Your task to perform on an android device: Search for the Nintendo Switch. Image 0: 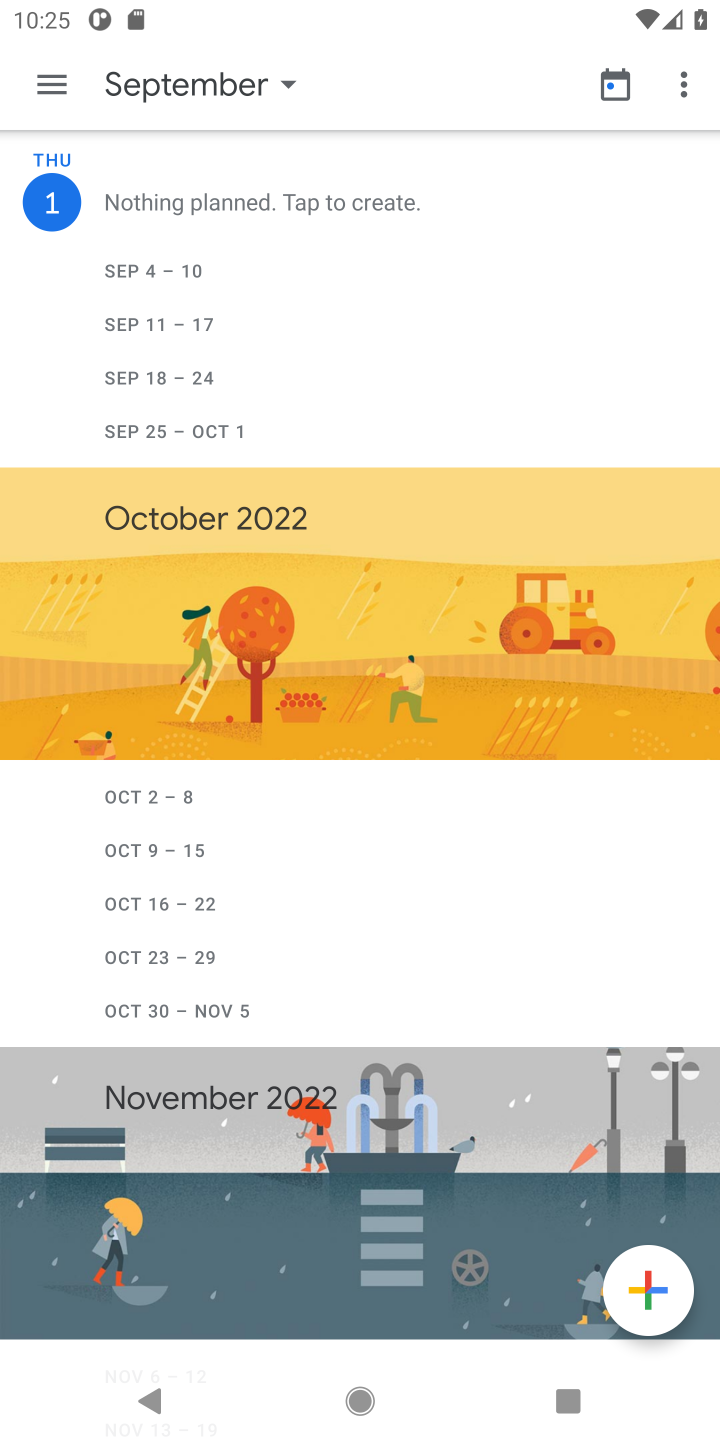
Step 0: press home button
Your task to perform on an android device: Search for the Nintendo Switch. Image 1: 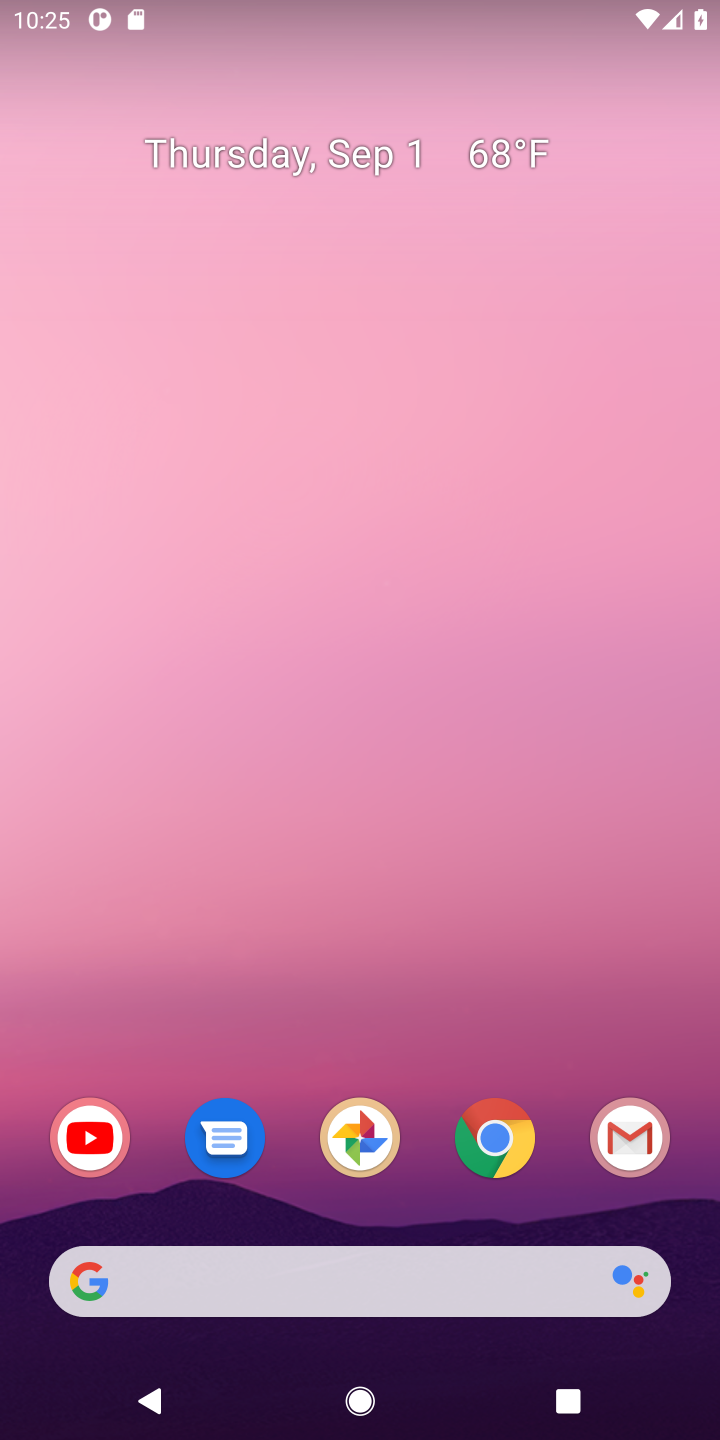
Step 1: click (367, 1287)
Your task to perform on an android device: Search for the Nintendo Switch. Image 2: 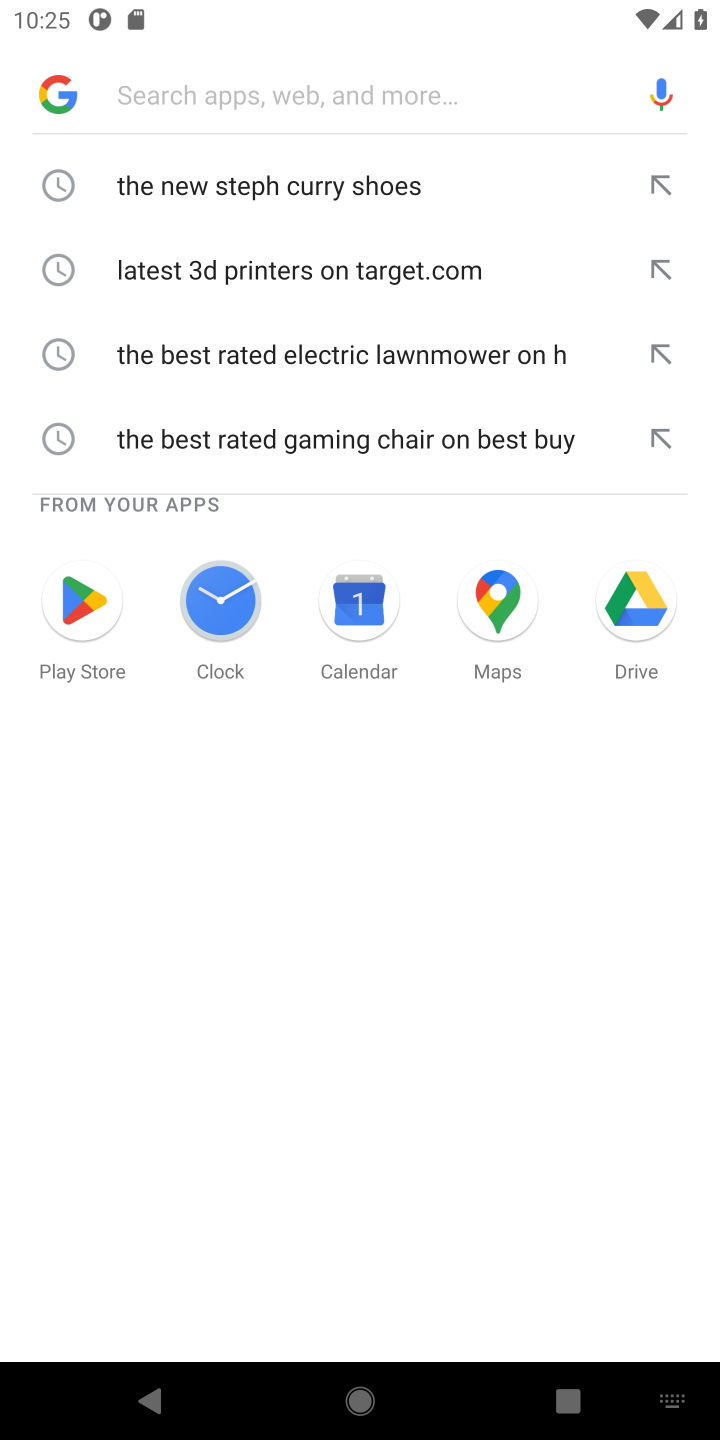
Step 2: type "the Nintendo Switch"
Your task to perform on an android device: Search for the Nintendo Switch. Image 3: 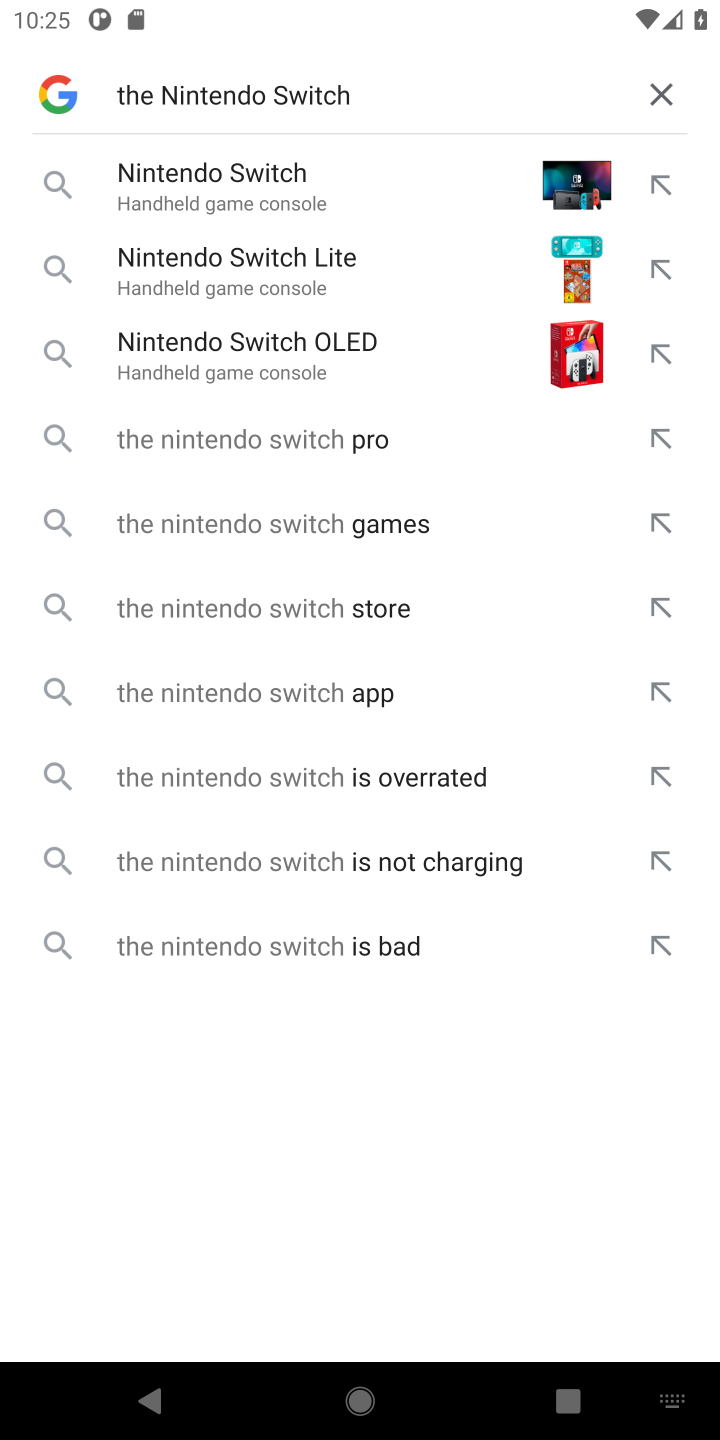
Step 3: click (260, 191)
Your task to perform on an android device: Search for the Nintendo Switch. Image 4: 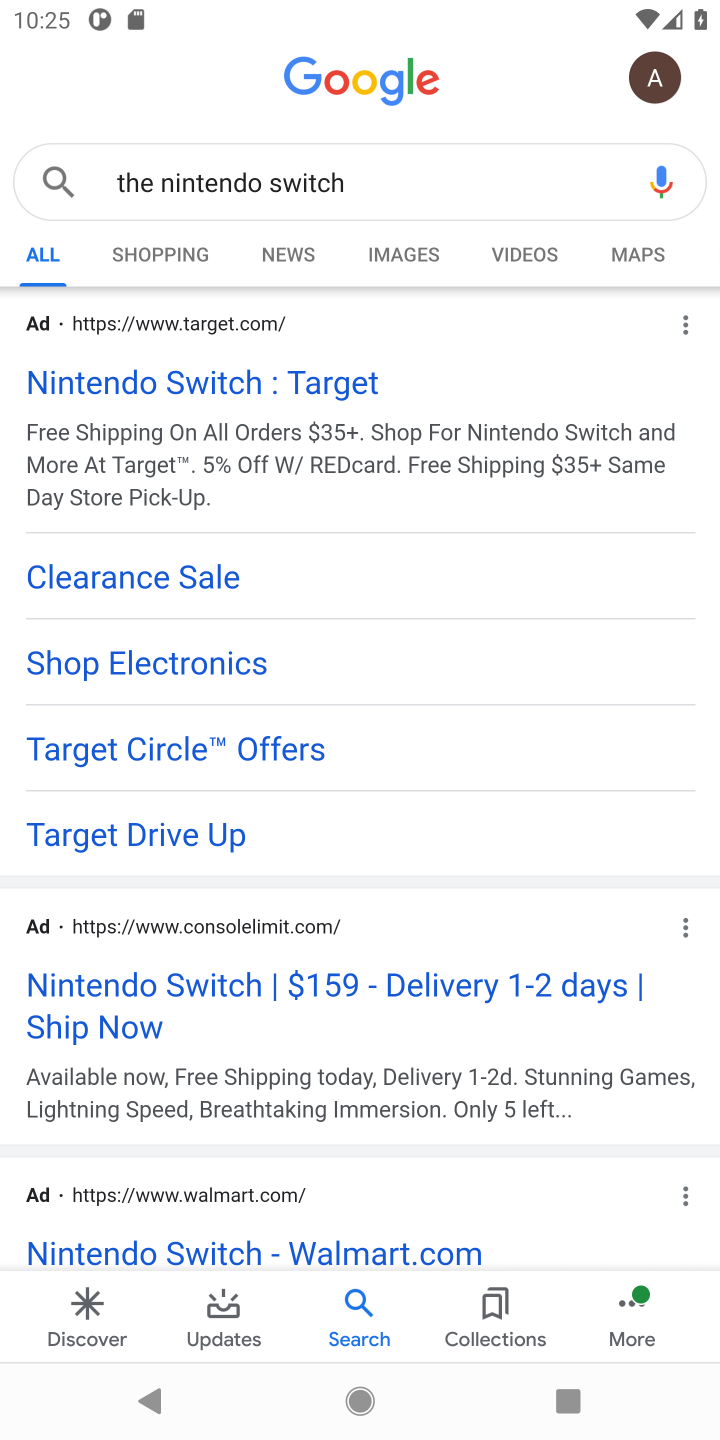
Step 4: click (160, 390)
Your task to perform on an android device: Search for the Nintendo Switch. Image 5: 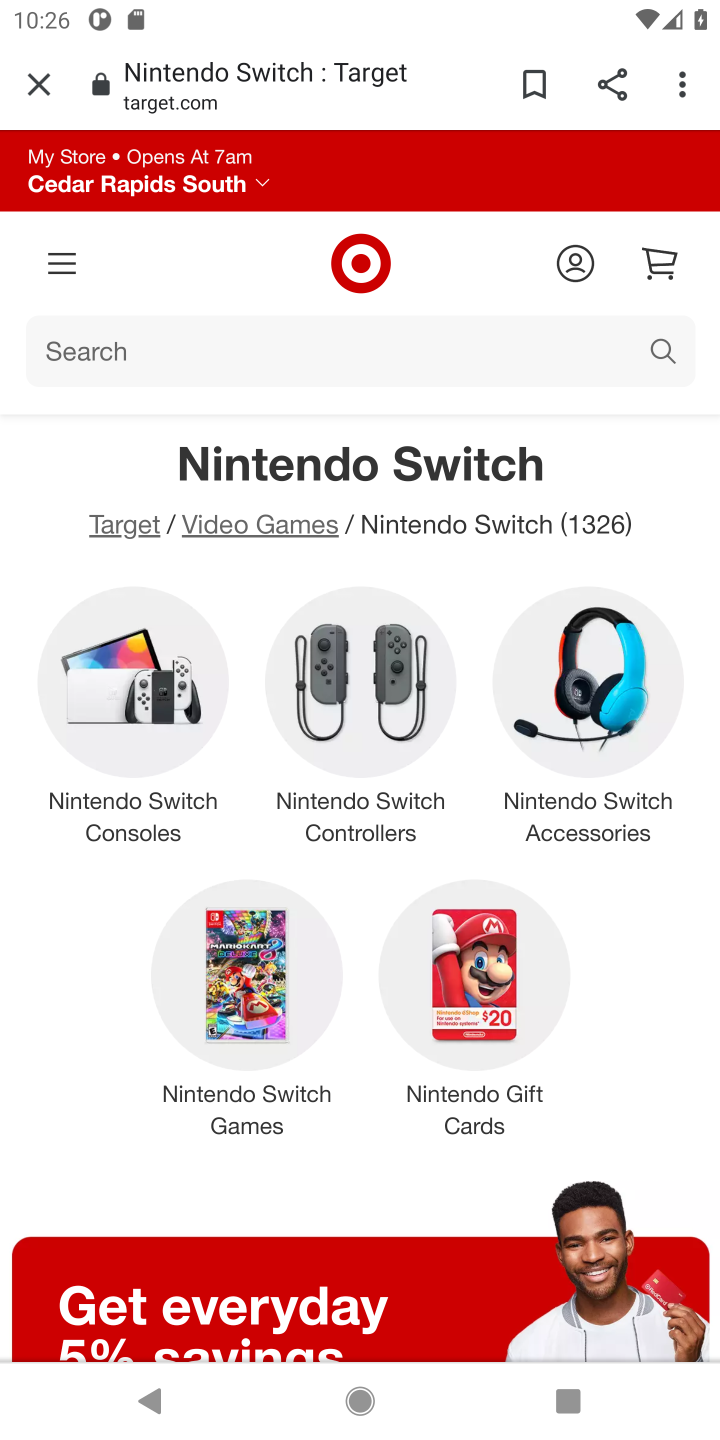
Step 5: task complete